Your task to perform on an android device: read, delete, or share a saved page in the chrome app Image 0: 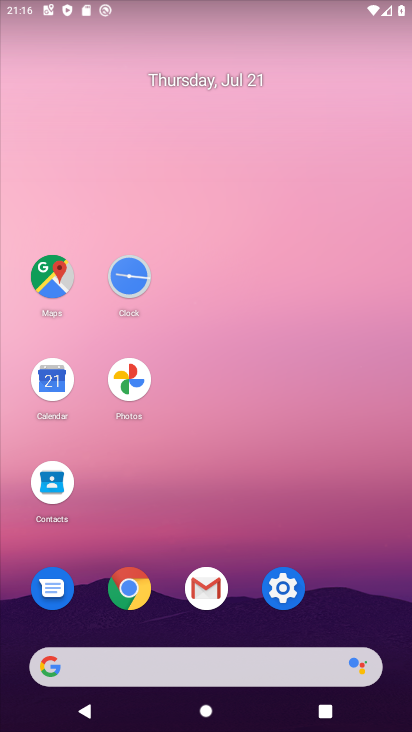
Step 0: click (125, 587)
Your task to perform on an android device: read, delete, or share a saved page in the chrome app Image 1: 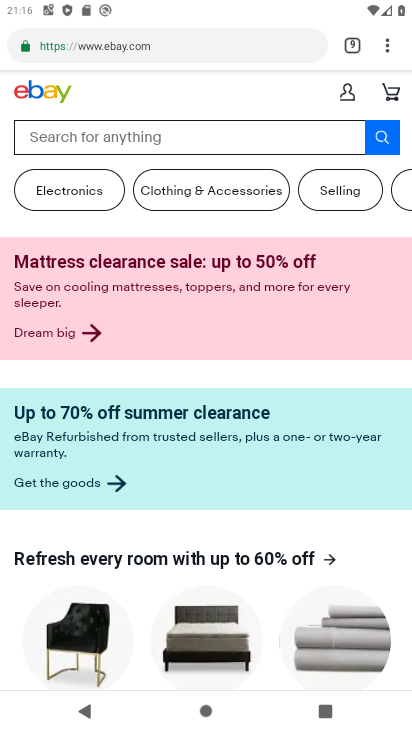
Step 1: click (388, 47)
Your task to perform on an android device: read, delete, or share a saved page in the chrome app Image 2: 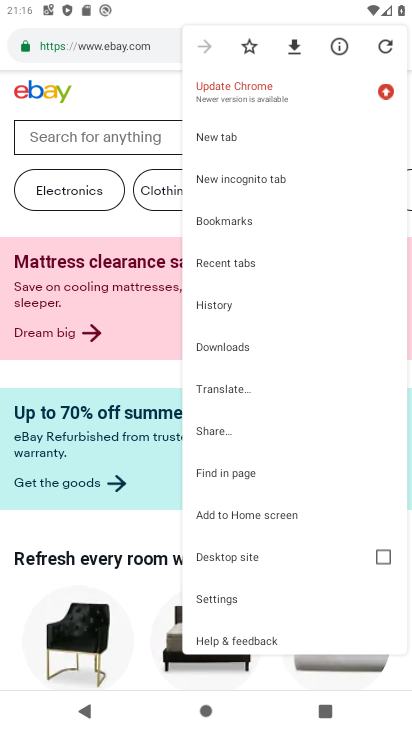
Step 2: click (212, 347)
Your task to perform on an android device: read, delete, or share a saved page in the chrome app Image 3: 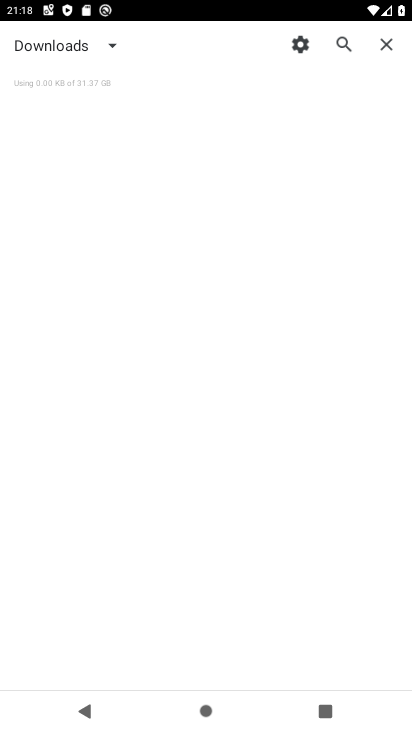
Step 3: task complete